Your task to perform on an android device: set the timer Image 0: 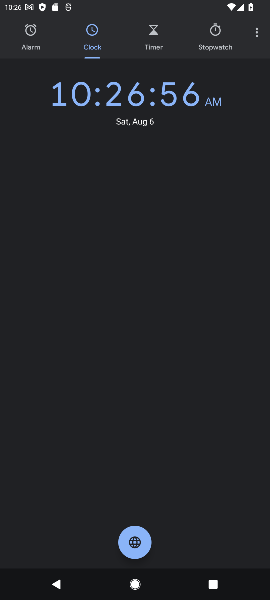
Step 0: click (148, 23)
Your task to perform on an android device: set the timer Image 1: 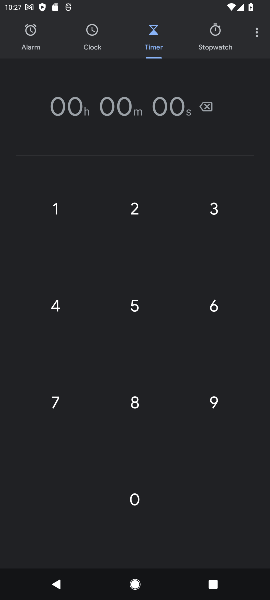
Step 1: click (133, 207)
Your task to perform on an android device: set the timer Image 2: 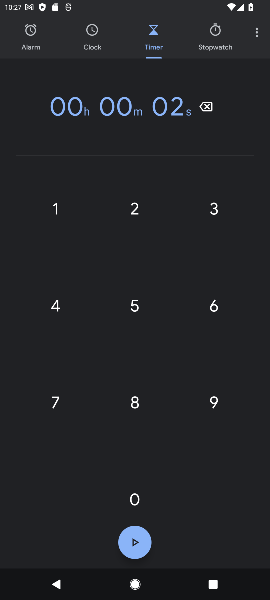
Step 2: click (133, 300)
Your task to perform on an android device: set the timer Image 3: 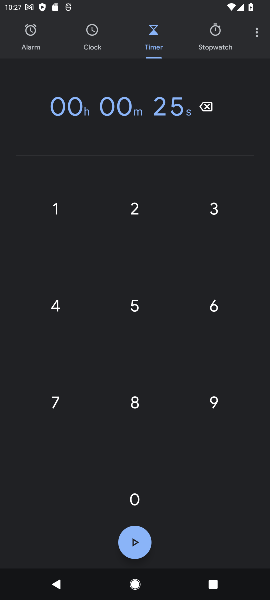
Step 3: click (132, 543)
Your task to perform on an android device: set the timer Image 4: 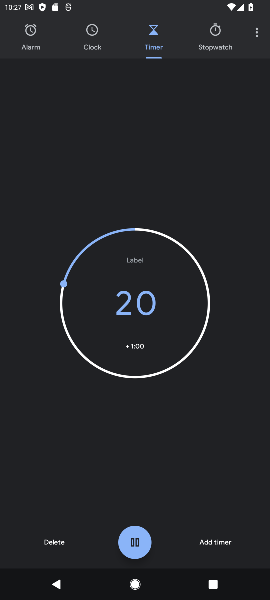
Step 4: task complete